Your task to perform on an android device: Open eBay Image 0: 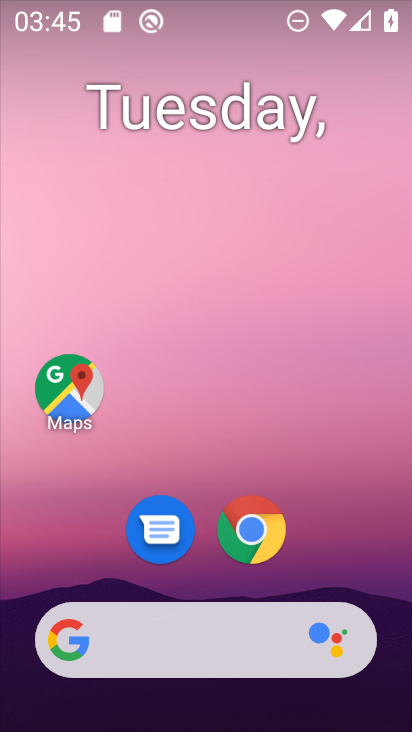
Step 0: click (255, 542)
Your task to perform on an android device: Open eBay Image 1: 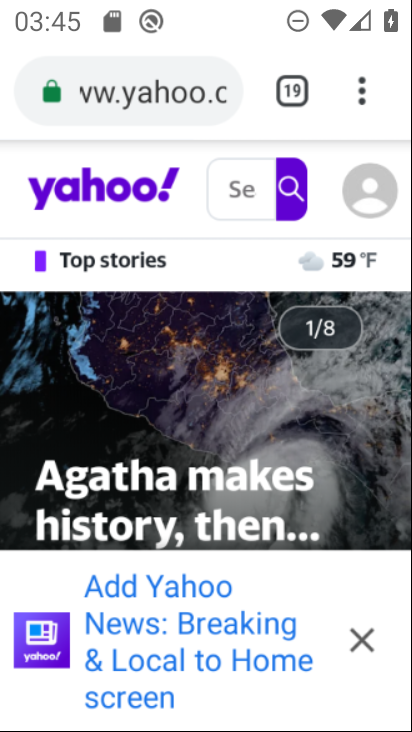
Step 1: click (355, 88)
Your task to perform on an android device: Open eBay Image 2: 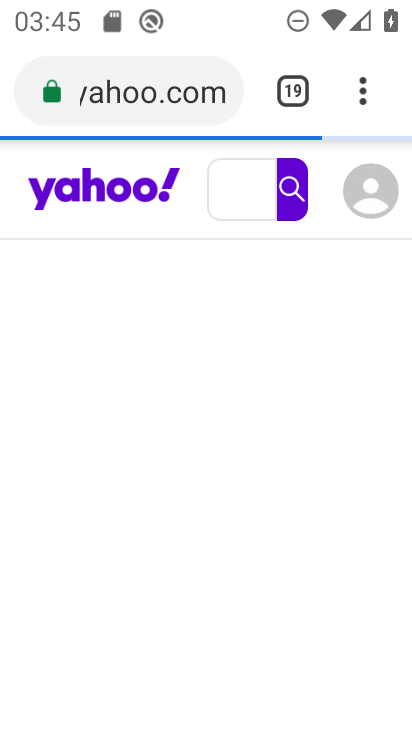
Step 2: click (384, 71)
Your task to perform on an android device: Open eBay Image 3: 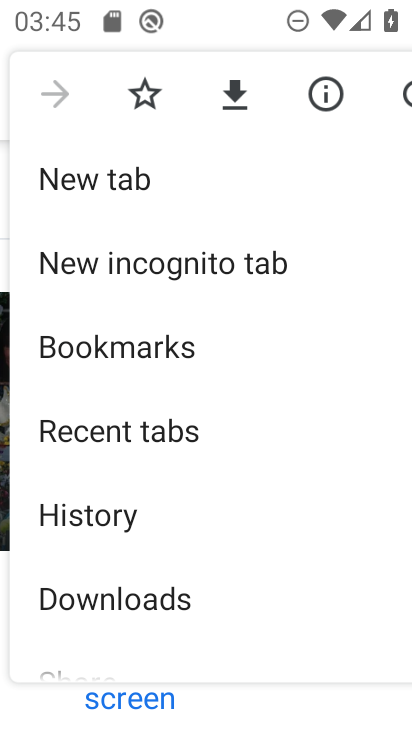
Step 3: click (133, 279)
Your task to perform on an android device: Open eBay Image 4: 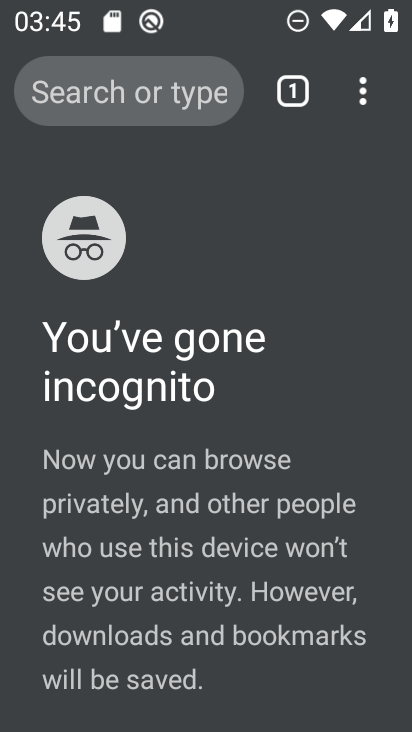
Step 4: press home button
Your task to perform on an android device: Open eBay Image 5: 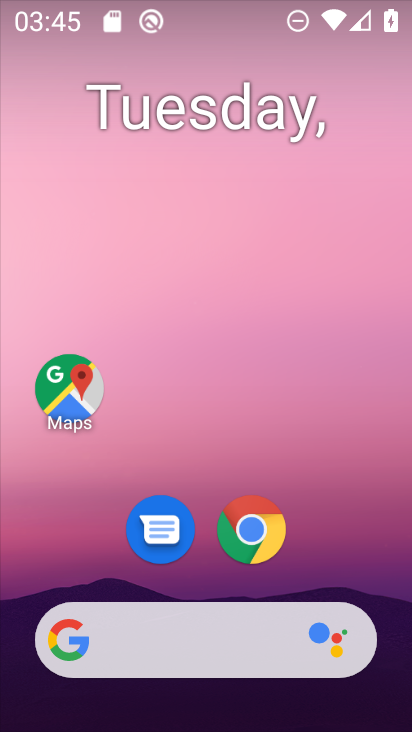
Step 5: drag from (257, 470) to (260, 537)
Your task to perform on an android device: Open eBay Image 6: 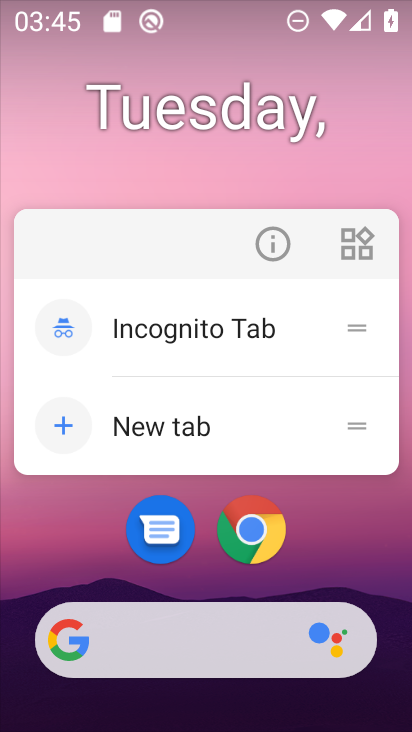
Step 6: click (261, 538)
Your task to perform on an android device: Open eBay Image 7: 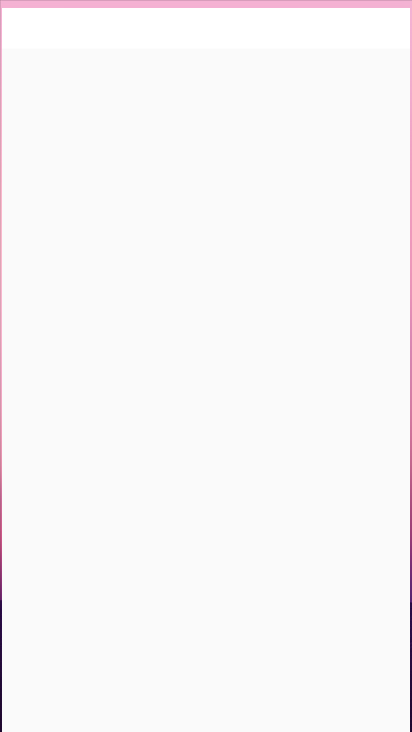
Step 7: click (255, 543)
Your task to perform on an android device: Open eBay Image 8: 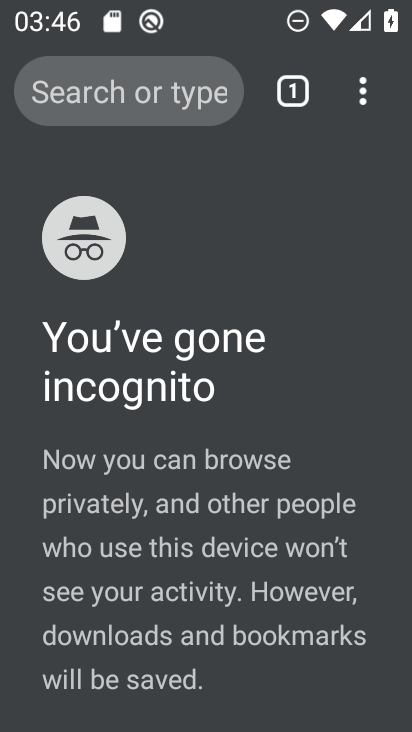
Step 8: task complete